Your task to perform on an android device: Open accessibility settings Image 0: 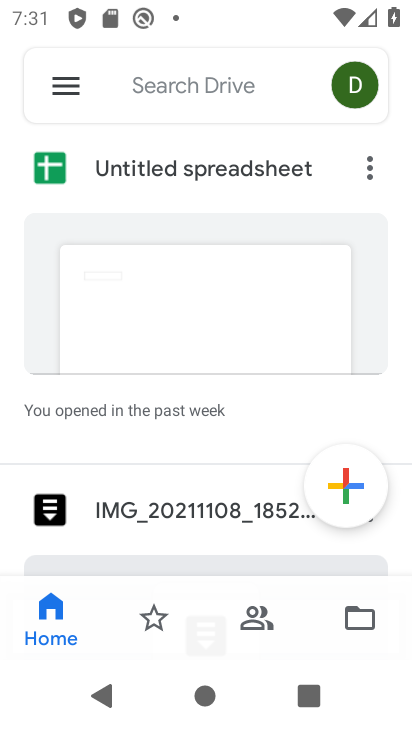
Step 0: press home button
Your task to perform on an android device: Open accessibility settings Image 1: 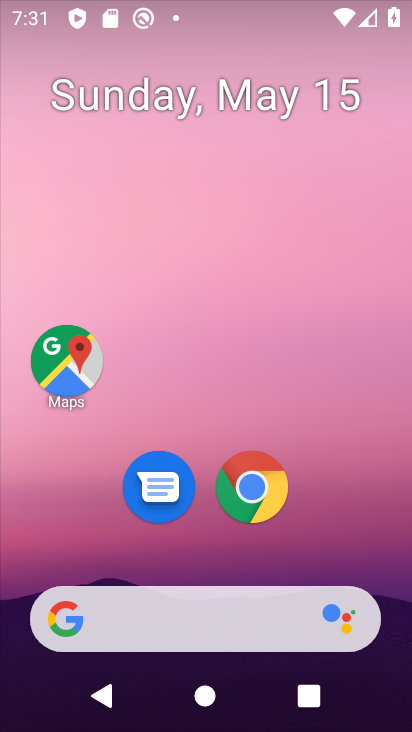
Step 1: drag from (340, 522) to (322, 181)
Your task to perform on an android device: Open accessibility settings Image 2: 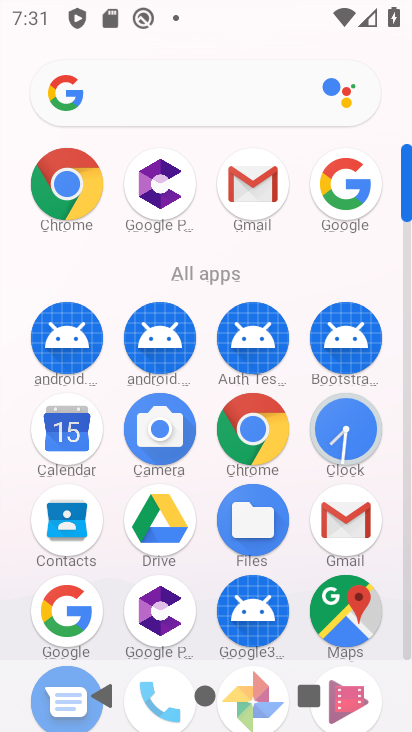
Step 2: drag from (303, 558) to (318, 263)
Your task to perform on an android device: Open accessibility settings Image 3: 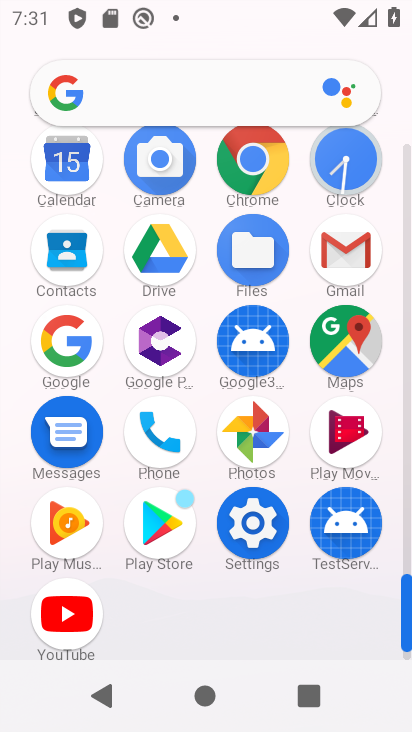
Step 3: click (240, 541)
Your task to perform on an android device: Open accessibility settings Image 4: 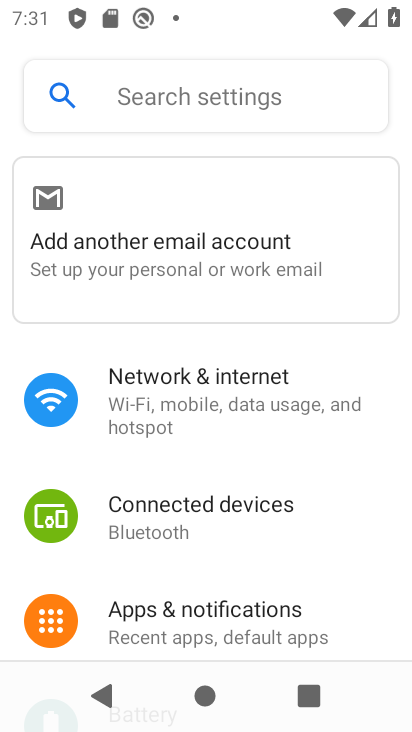
Step 4: drag from (235, 566) to (256, 256)
Your task to perform on an android device: Open accessibility settings Image 5: 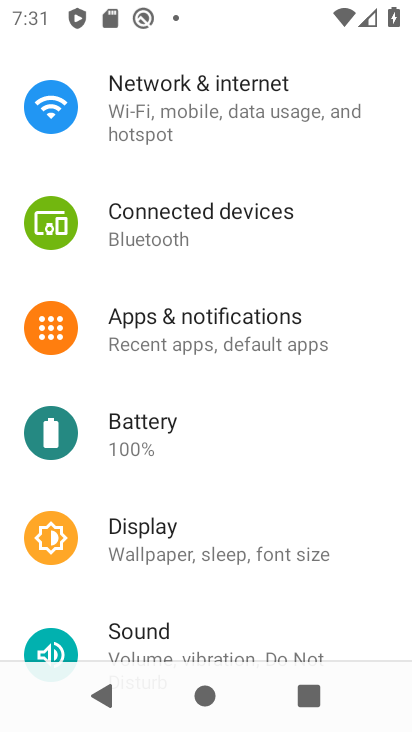
Step 5: drag from (255, 588) to (299, 176)
Your task to perform on an android device: Open accessibility settings Image 6: 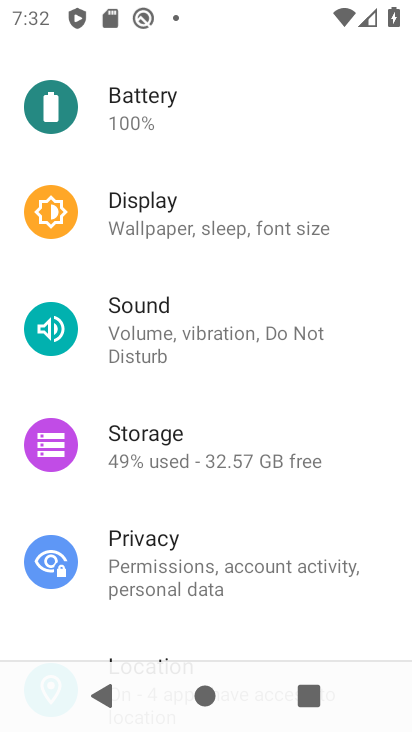
Step 6: drag from (322, 594) to (318, 139)
Your task to perform on an android device: Open accessibility settings Image 7: 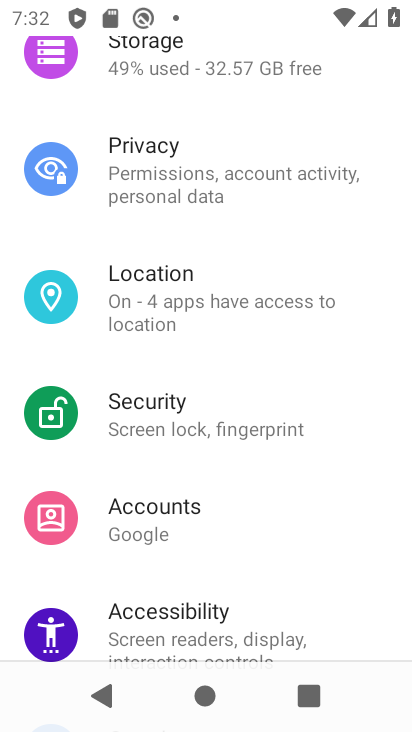
Step 7: click (259, 642)
Your task to perform on an android device: Open accessibility settings Image 8: 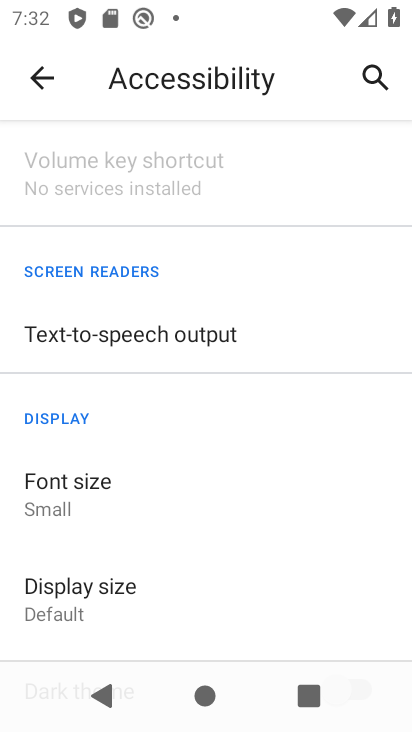
Step 8: task complete